Your task to perform on an android device: open app "NewsBreak: Local News & Alerts" Image 0: 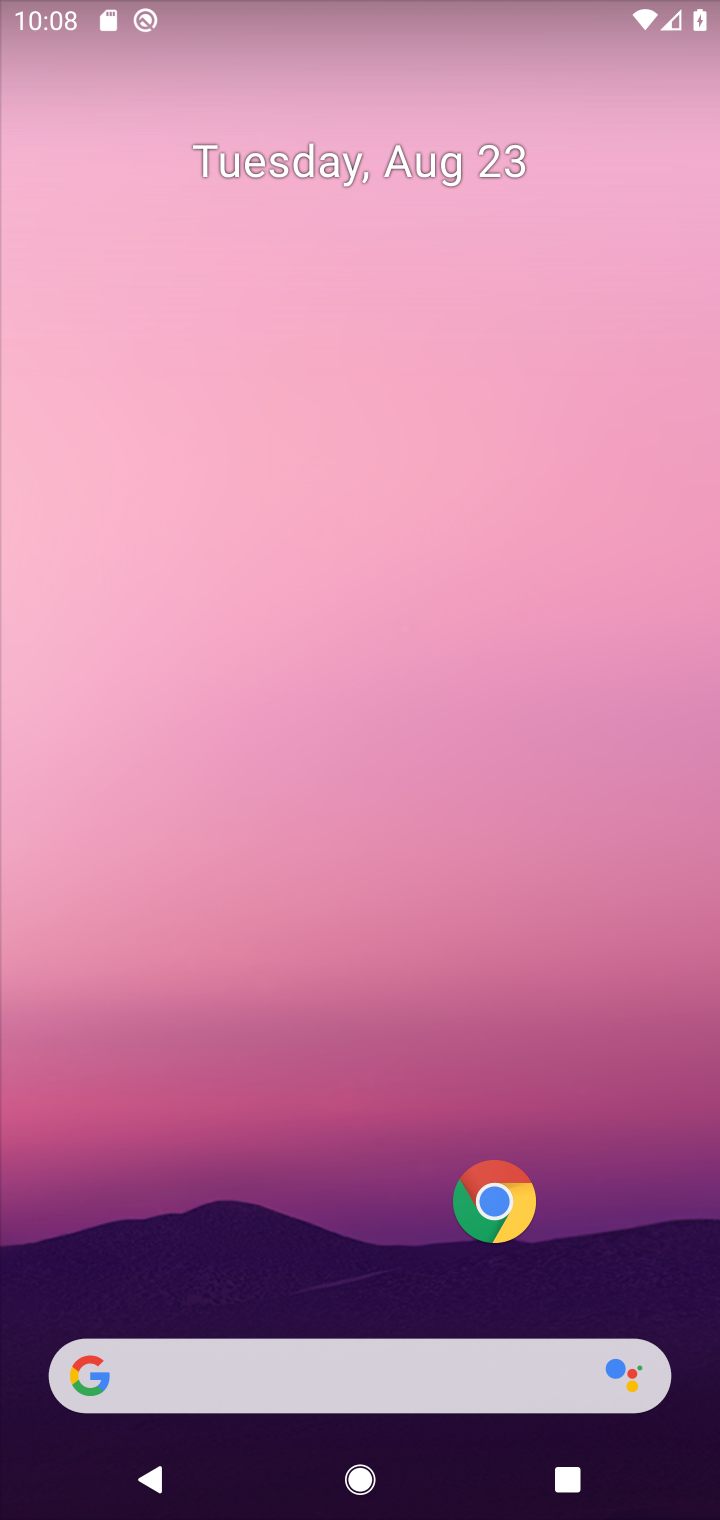
Step 0: drag from (404, 1276) to (455, 744)
Your task to perform on an android device: open app "NewsBreak: Local News & Alerts" Image 1: 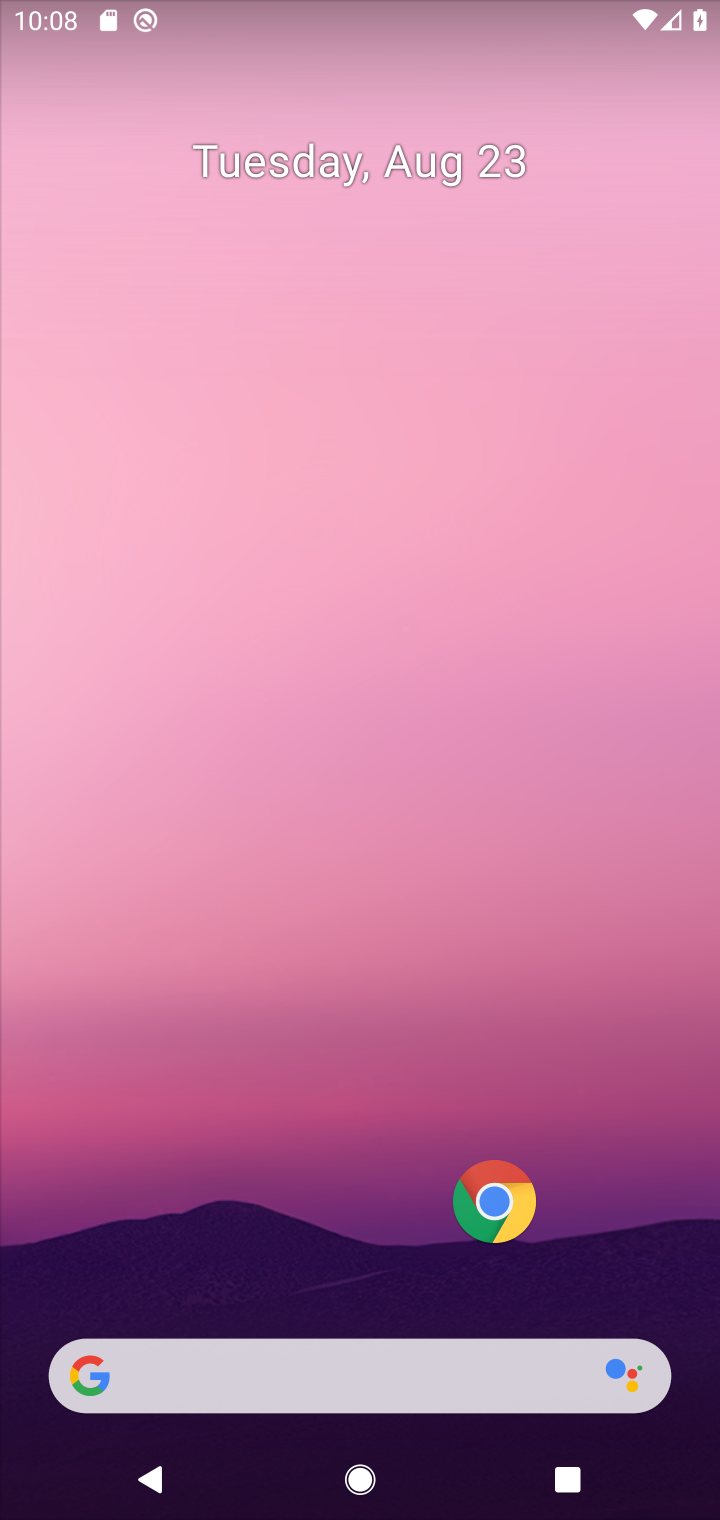
Step 1: drag from (296, 1353) to (301, 613)
Your task to perform on an android device: open app "NewsBreak: Local News & Alerts" Image 2: 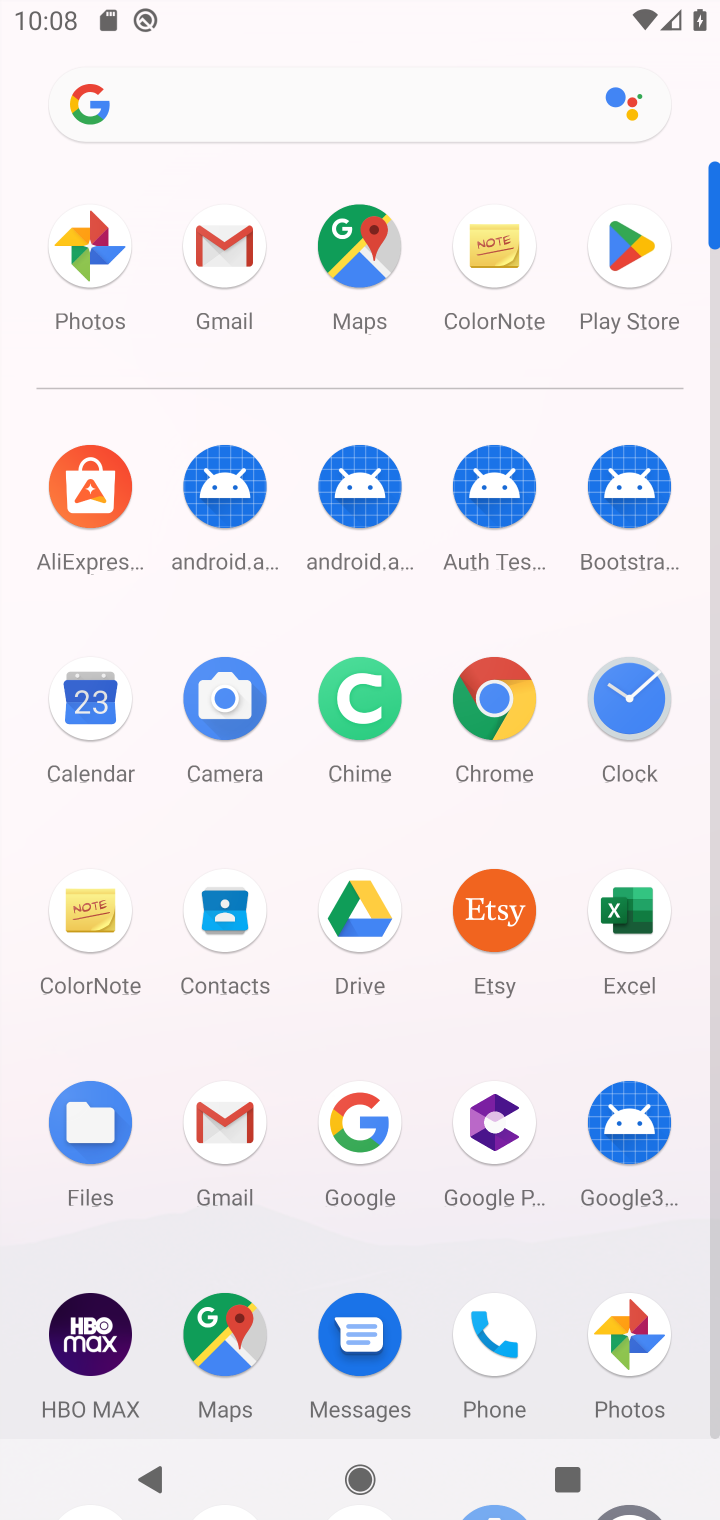
Step 2: click (614, 241)
Your task to perform on an android device: open app "NewsBreak: Local News & Alerts" Image 3: 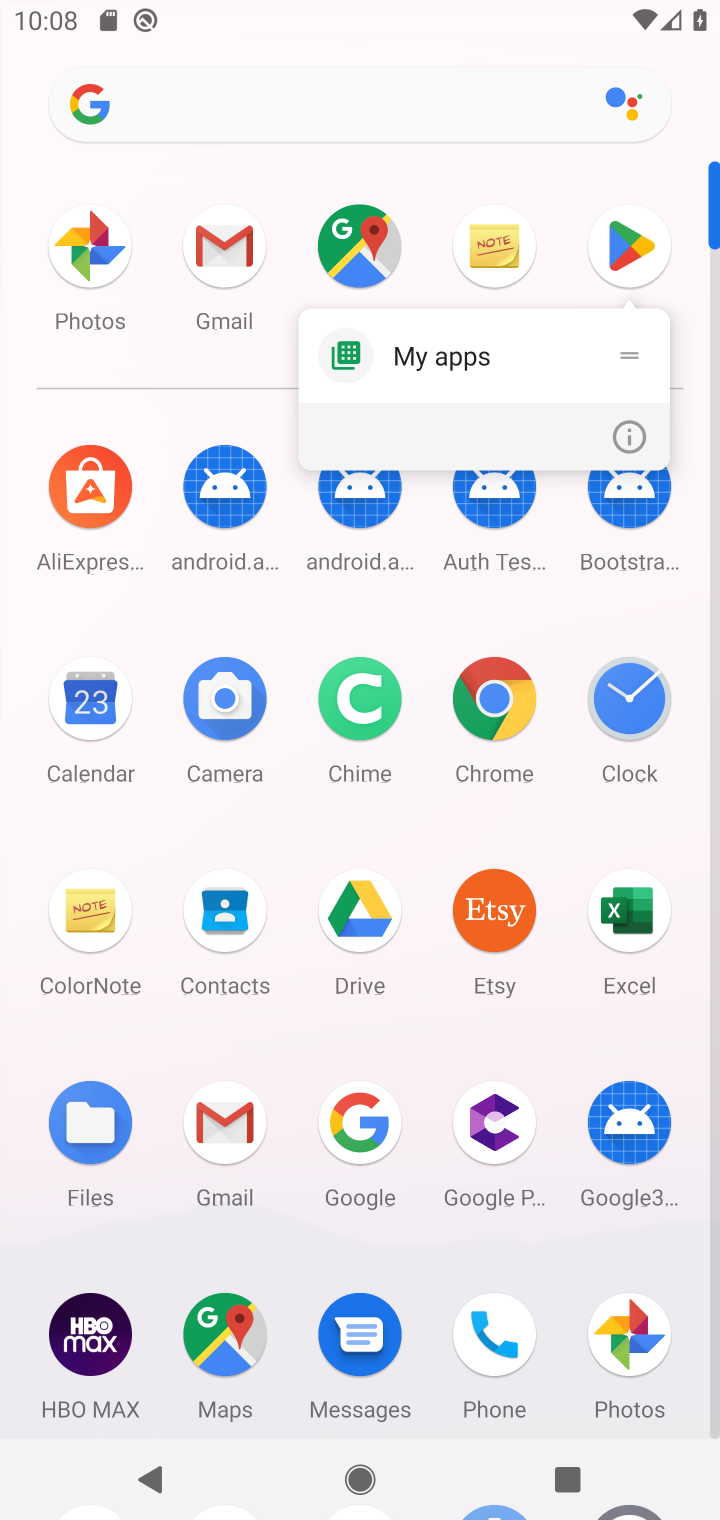
Step 3: click (642, 228)
Your task to perform on an android device: open app "NewsBreak: Local News & Alerts" Image 4: 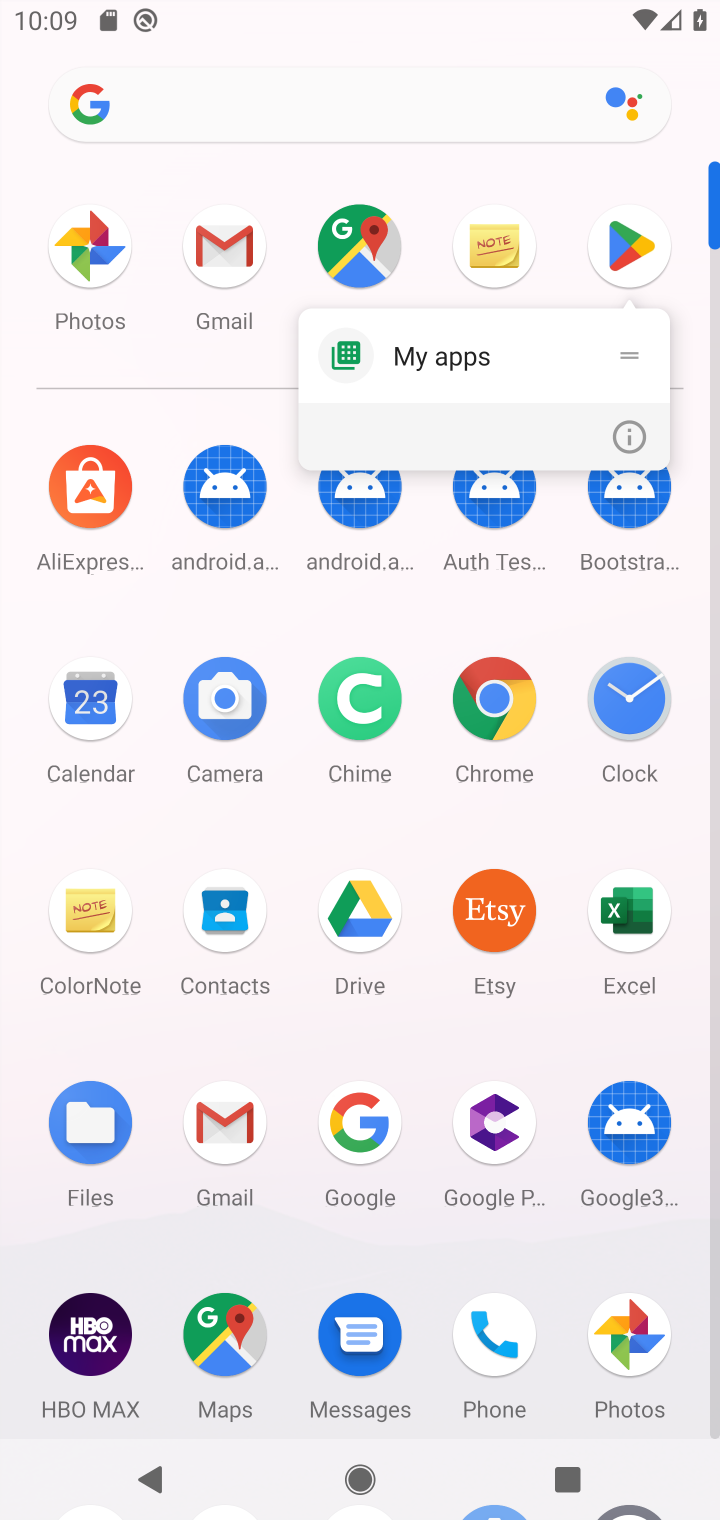
Step 4: click (642, 228)
Your task to perform on an android device: open app "NewsBreak: Local News & Alerts" Image 5: 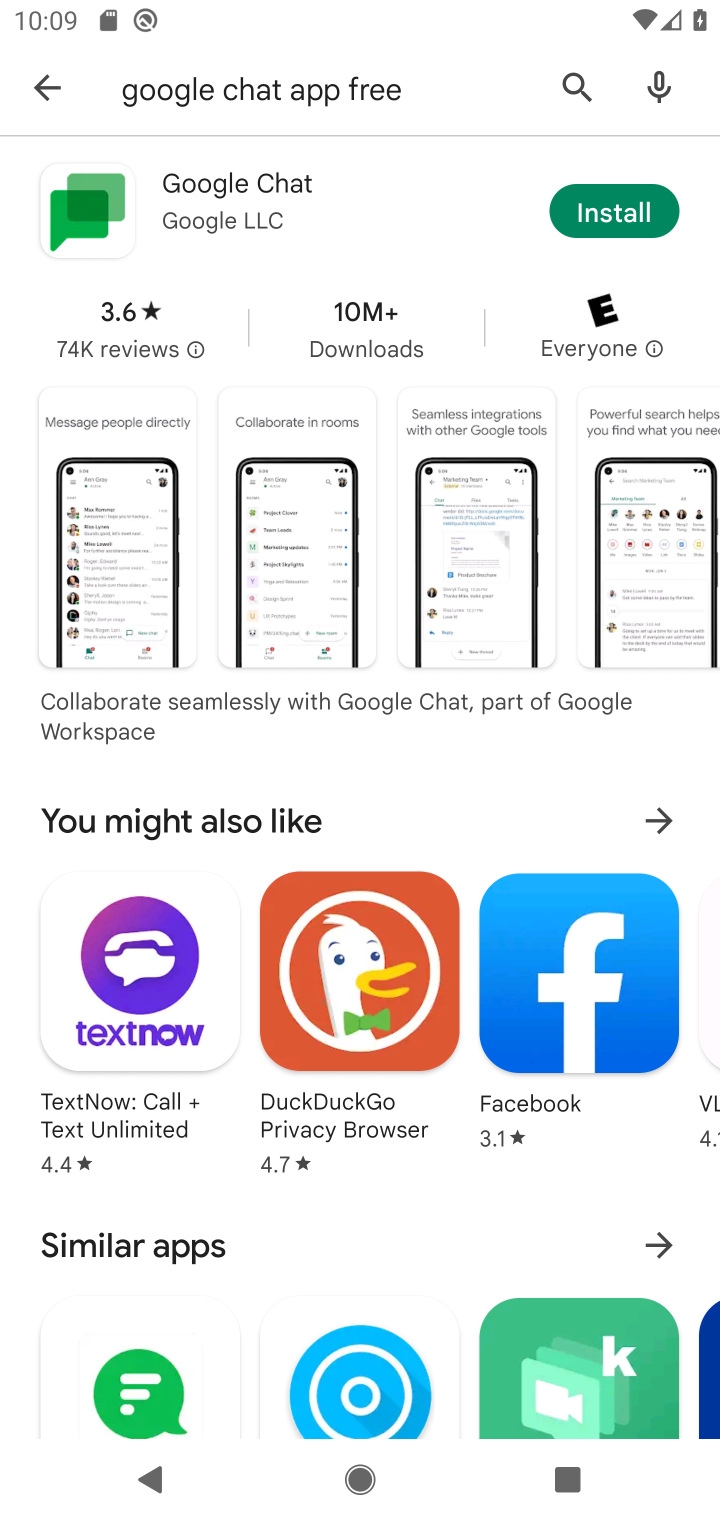
Step 5: click (57, 112)
Your task to perform on an android device: open app "NewsBreak: Local News & Alerts" Image 6: 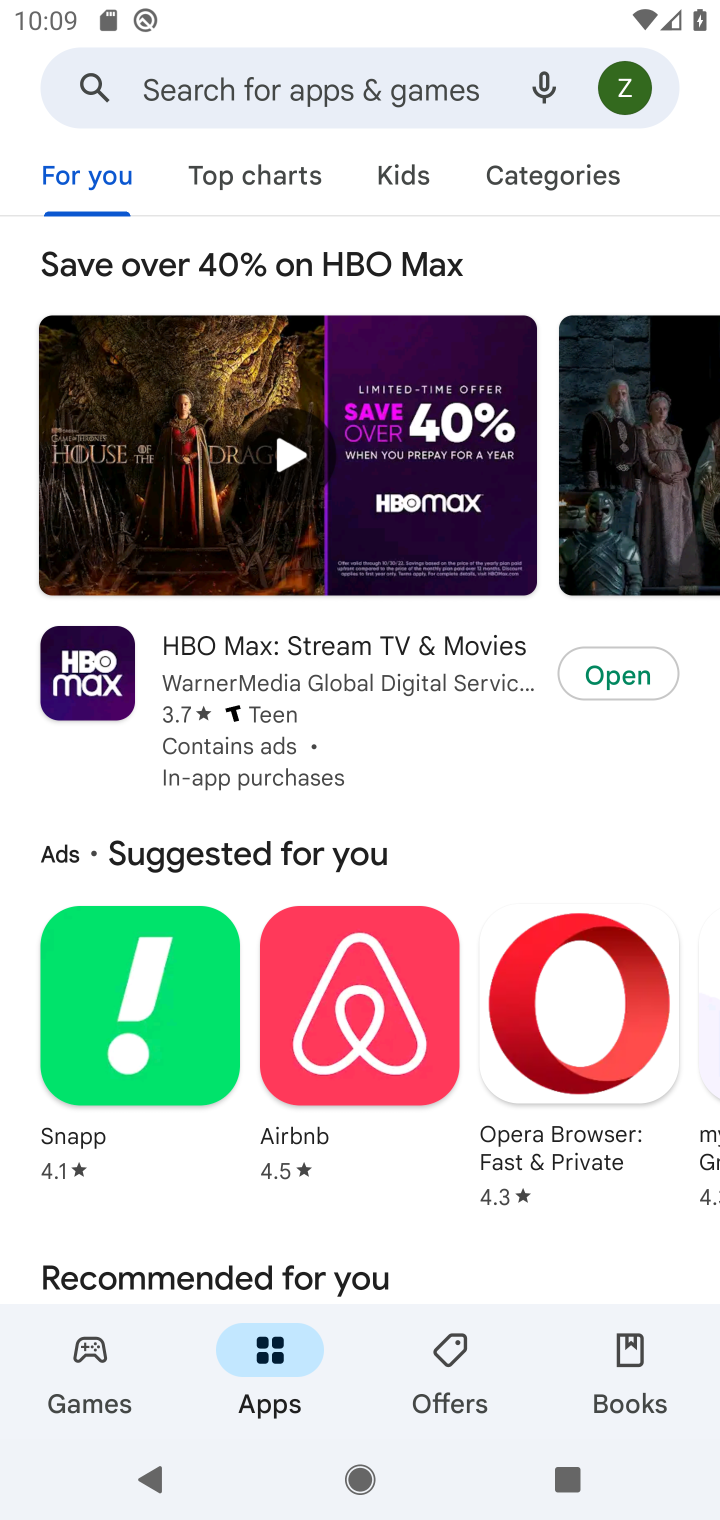
Step 6: click (218, 66)
Your task to perform on an android device: open app "NewsBreak: Local News & Alerts" Image 7: 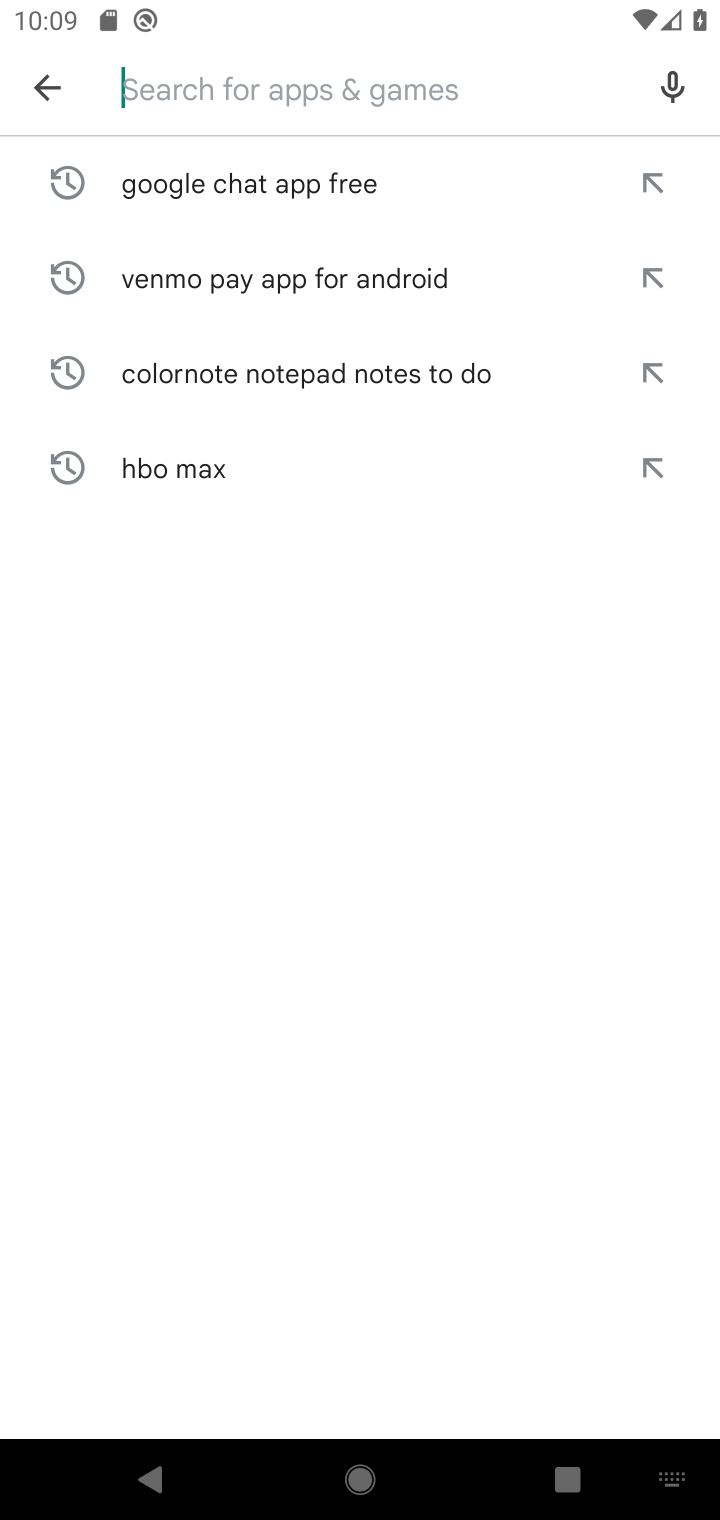
Step 7: type "NewsBreak: Local News & Alerts "
Your task to perform on an android device: open app "NewsBreak: Local News & Alerts" Image 8: 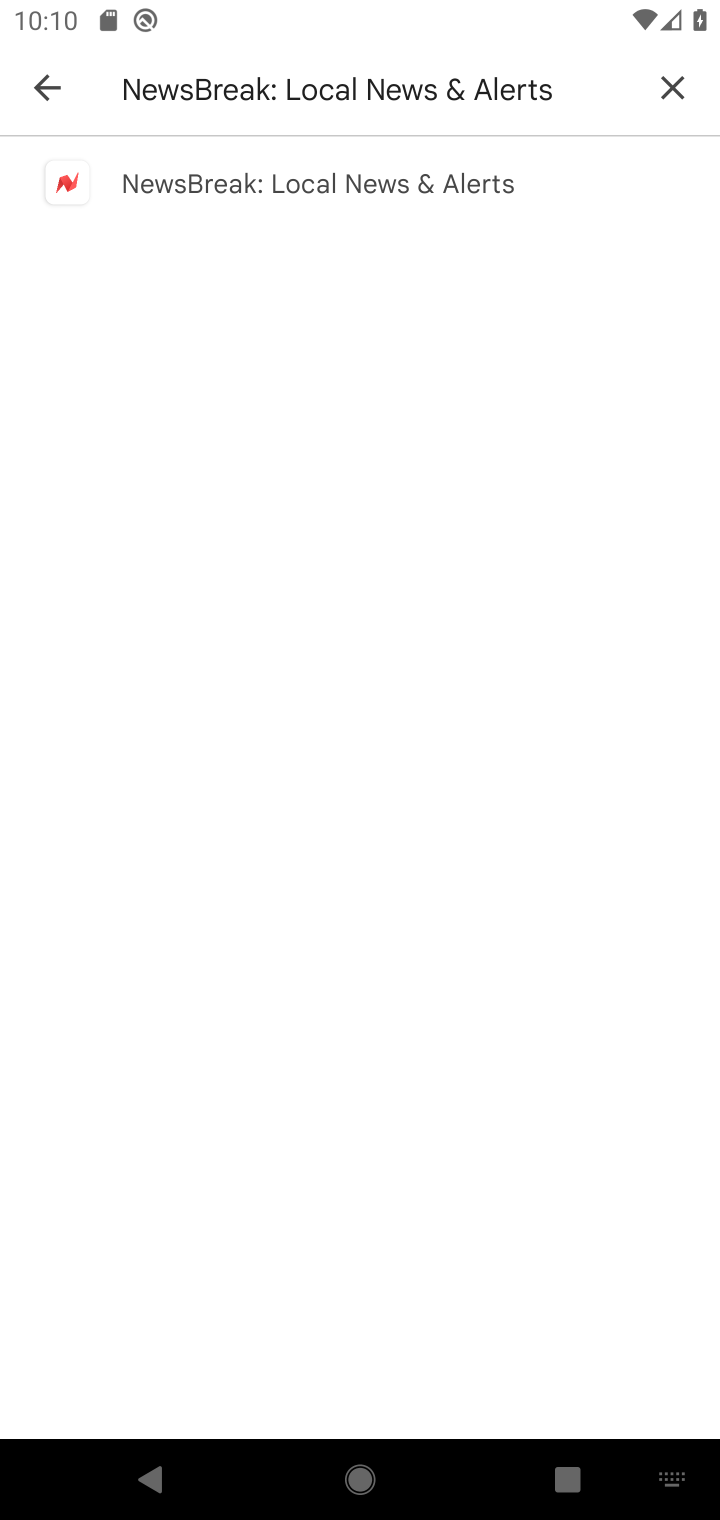
Step 8: click (336, 195)
Your task to perform on an android device: open app "NewsBreak: Local News & Alerts" Image 9: 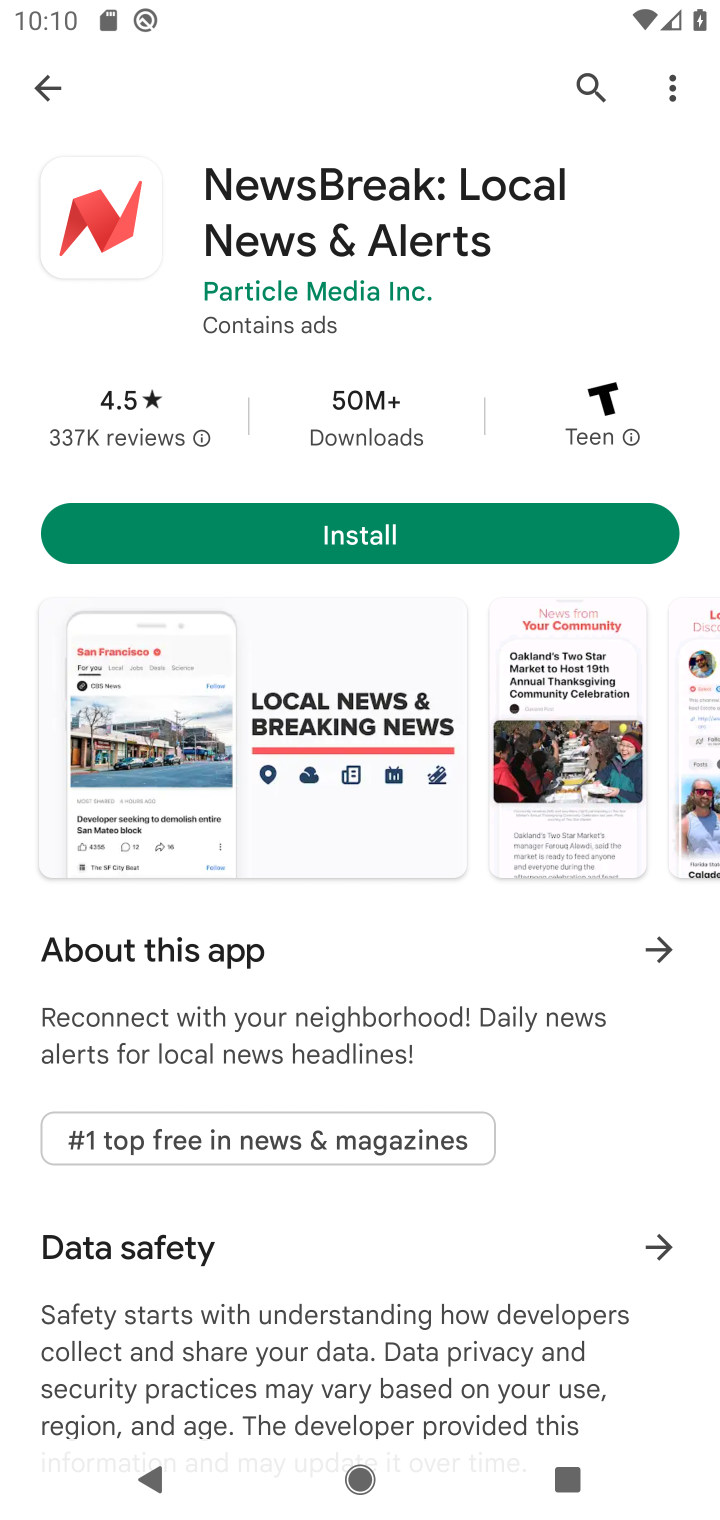
Step 9: click (332, 527)
Your task to perform on an android device: open app "NewsBreak: Local News & Alerts" Image 10: 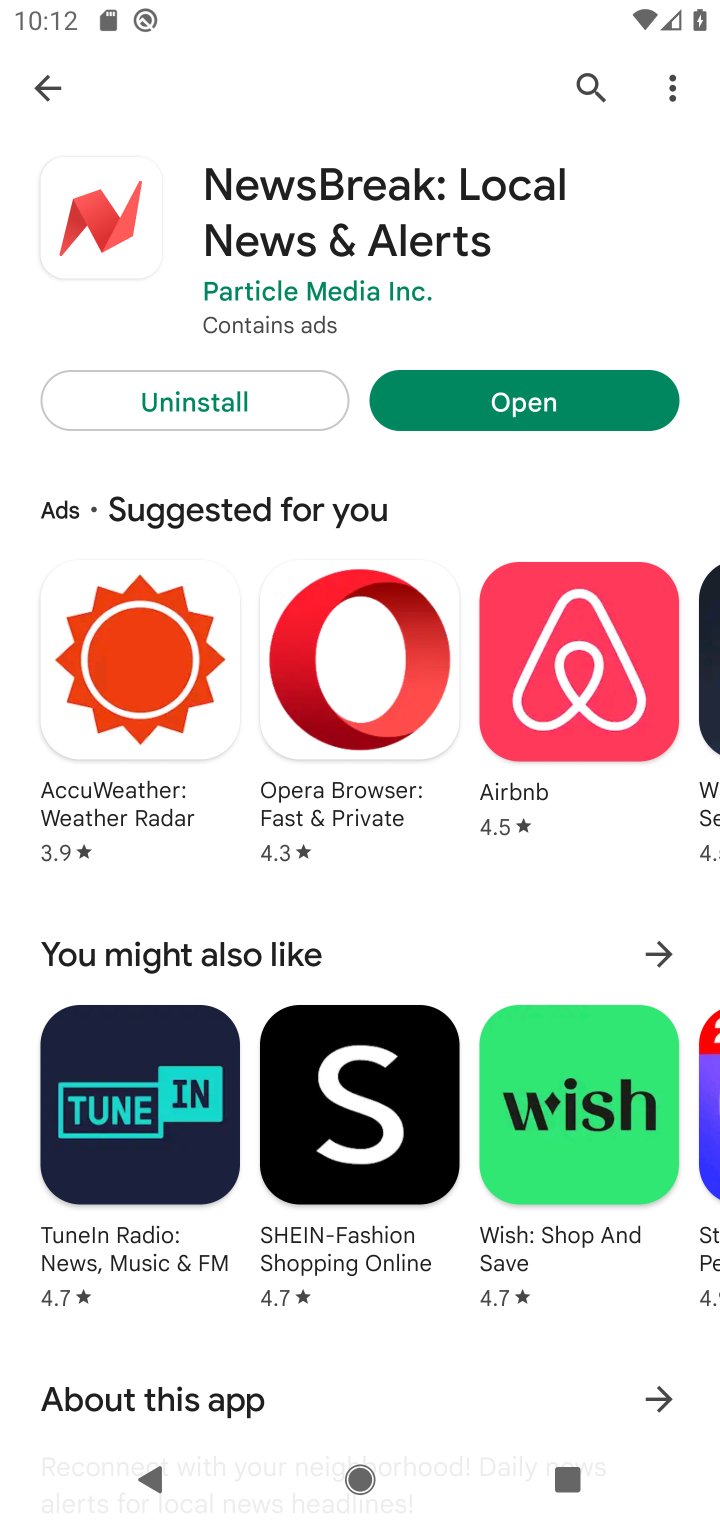
Step 10: task complete